Your task to perform on an android device: find photos in the google photos app Image 0: 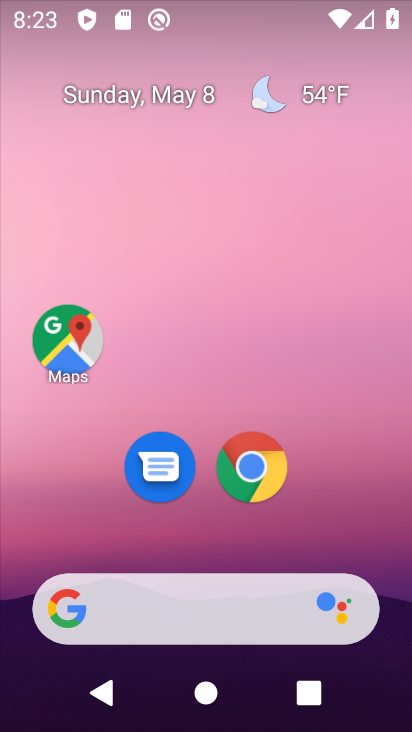
Step 0: drag from (389, 664) to (370, 89)
Your task to perform on an android device: find photos in the google photos app Image 1: 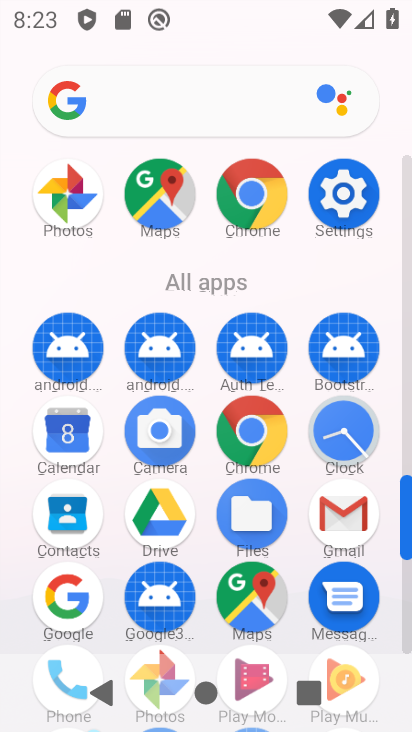
Step 1: click (407, 643)
Your task to perform on an android device: find photos in the google photos app Image 2: 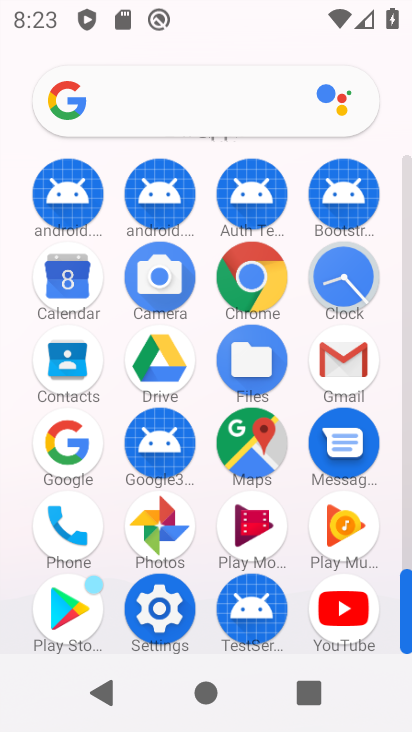
Step 2: click (156, 526)
Your task to perform on an android device: find photos in the google photos app Image 3: 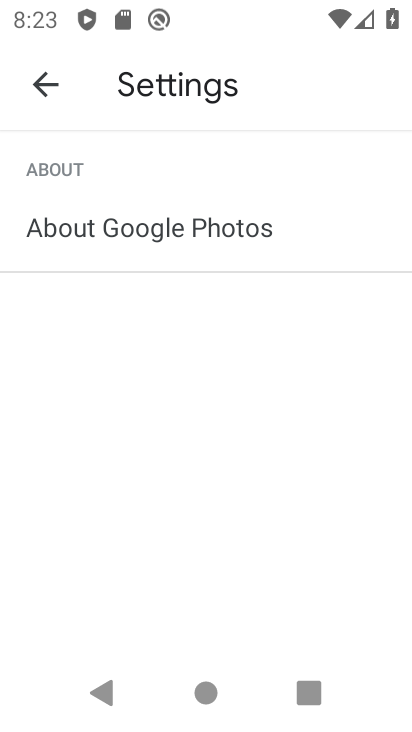
Step 3: press back button
Your task to perform on an android device: find photos in the google photos app Image 4: 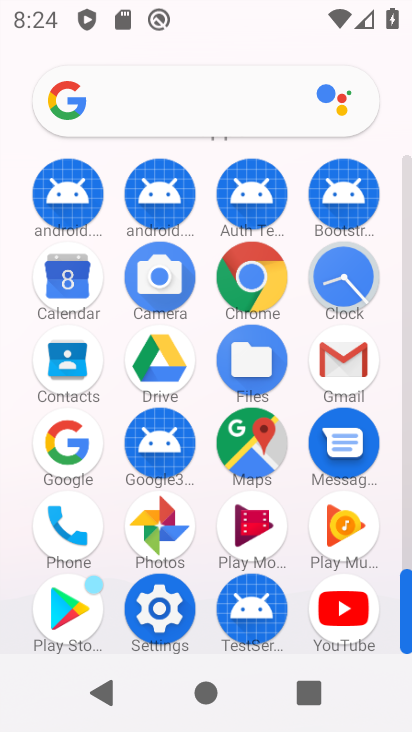
Step 4: click (158, 525)
Your task to perform on an android device: find photos in the google photos app Image 5: 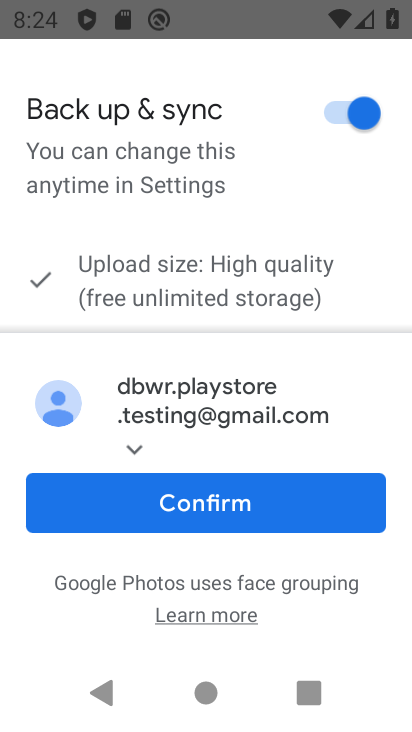
Step 5: click (202, 511)
Your task to perform on an android device: find photos in the google photos app Image 6: 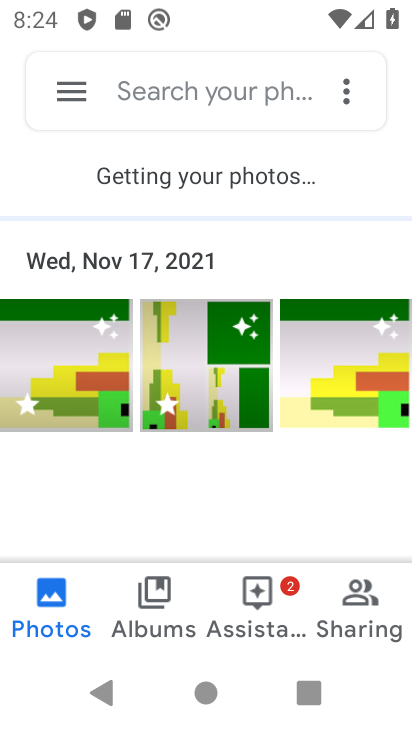
Step 6: task complete